Your task to perform on an android device: Open Google Image 0: 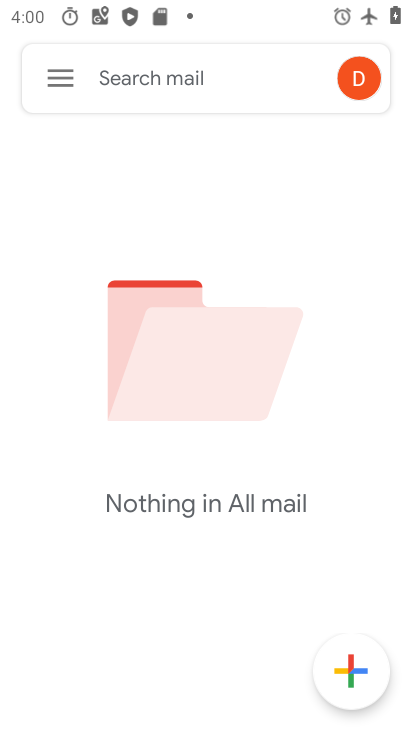
Step 0: press home button
Your task to perform on an android device: Open Google Image 1: 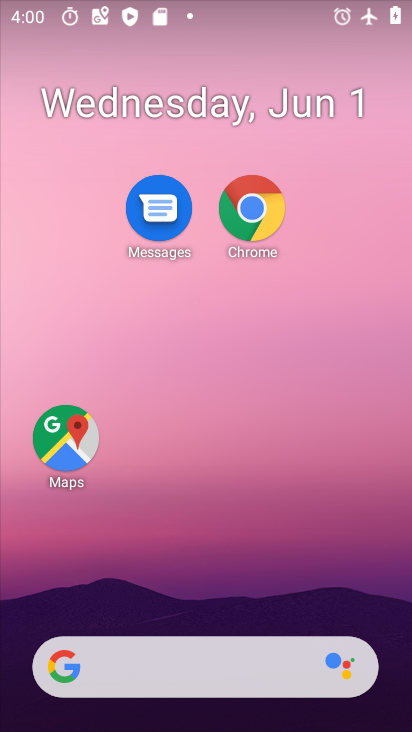
Step 1: drag from (189, 602) to (189, 216)
Your task to perform on an android device: Open Google Image 2: 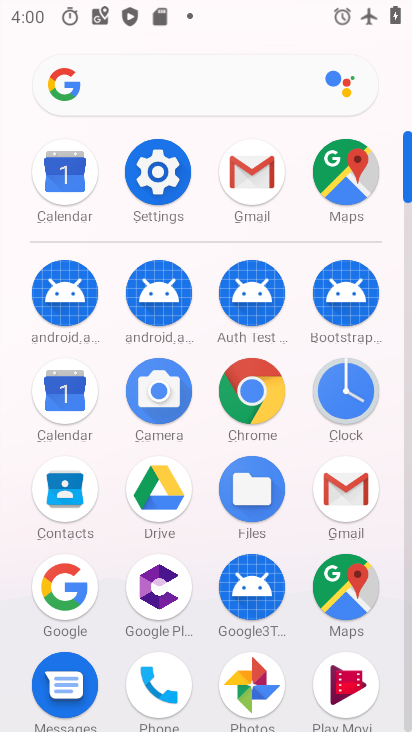
Step 2: click (80, 589)
Your task to perform on an android device: Open Google Image 3: 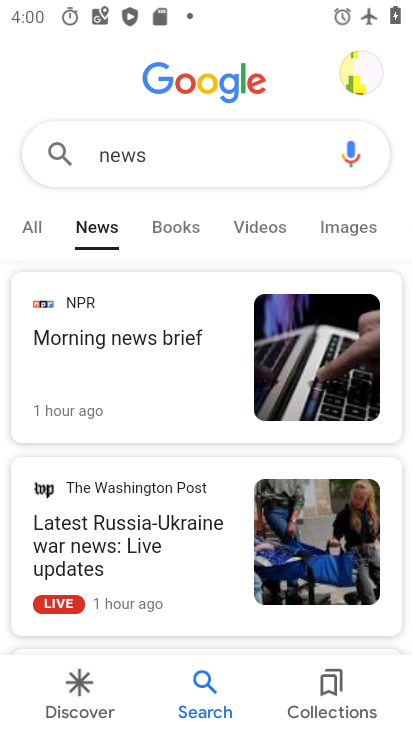
Step 3: task complete